Your task to perform on an android device: turn on translation in the chrome app Image 0: 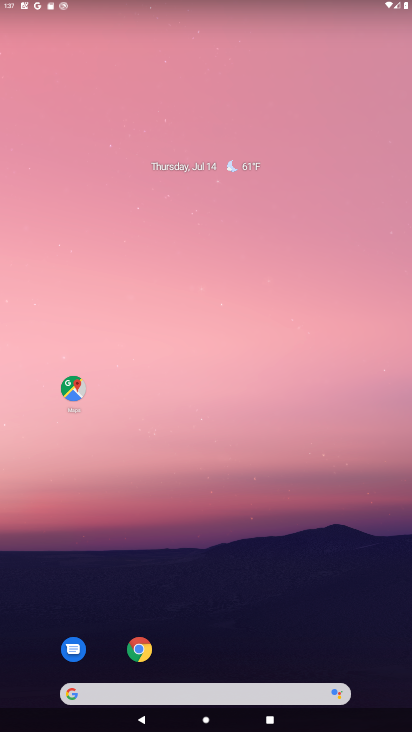
Step 0: drag from (277, 676) to (223, 194)
Your task to perform on an android device: turn on translation in the chrome app Image 1: 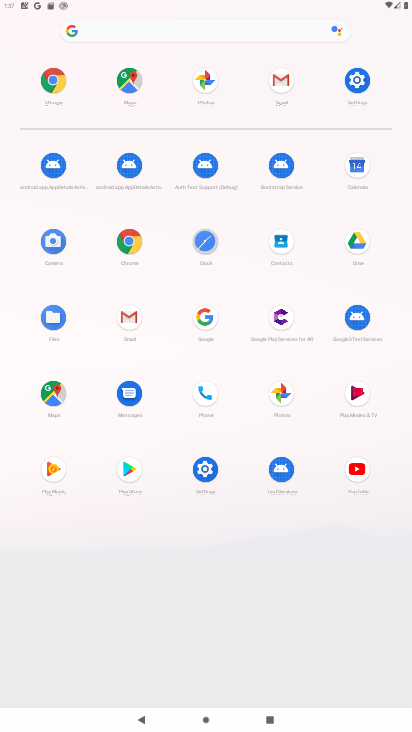
Step 1: click (129, 248)
Your task to perform on an android device: turn on translation in the chrome app Image 2: 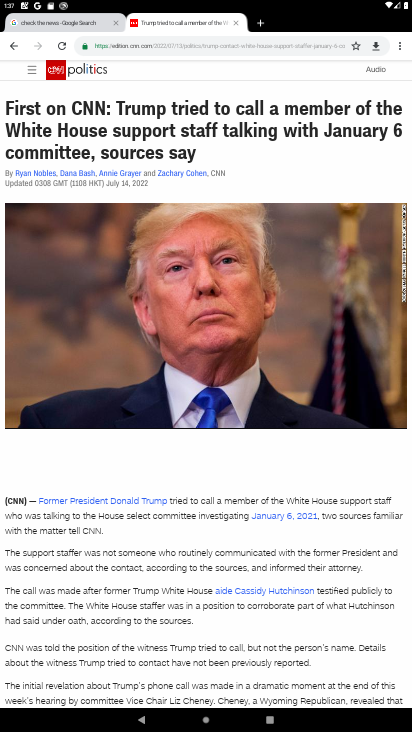
Step 2: drag from (396, 43) to (306, 304)
Your task to perform on an android device: turn on translation in the chrome app Image 3: 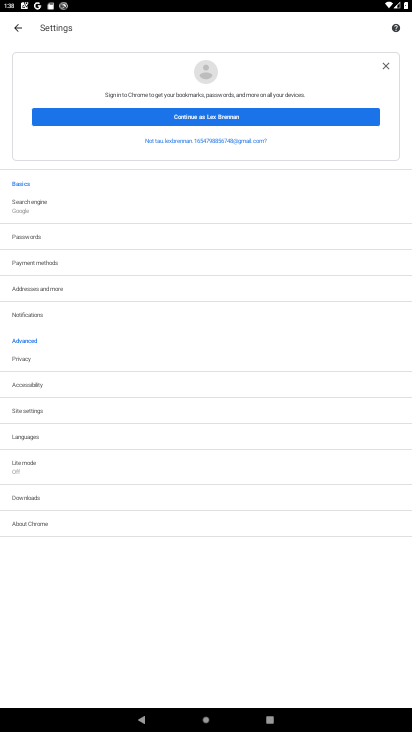
Step 3: click (54, 443)
Your task to perform on an android device: turn on translation in the chrome app Image 4: 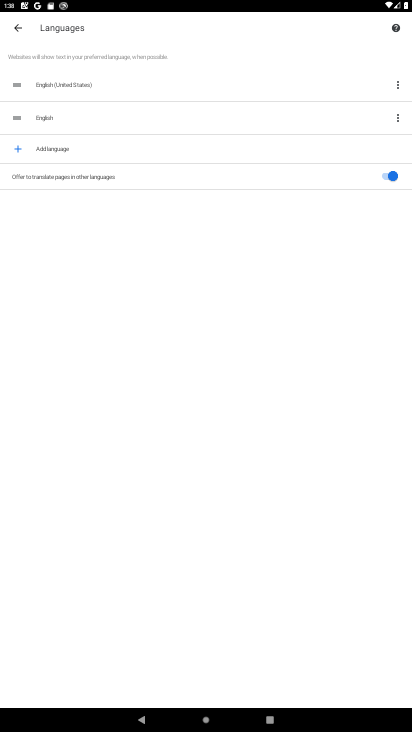
Step 4: task complete